Your task to perform on an android device: See recent photos Image 0: 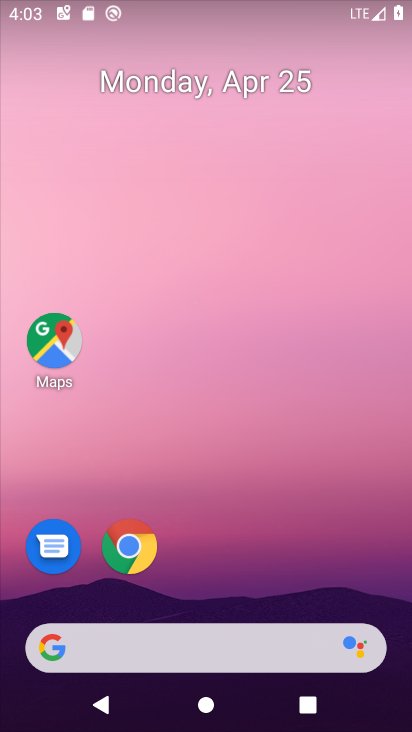
Step 0: drag from (300, 491) to (408, 59)
Your task to perform on an android device: See recent photos Image 1: 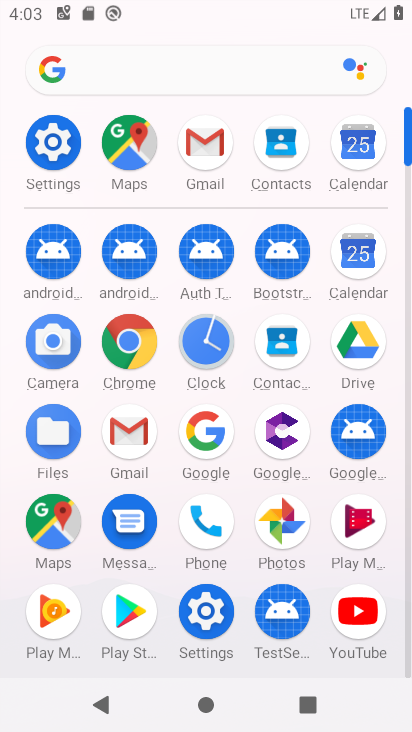
Step 1: click (274, 518)
Your task to perform on an android device: See recent photos Image 2: 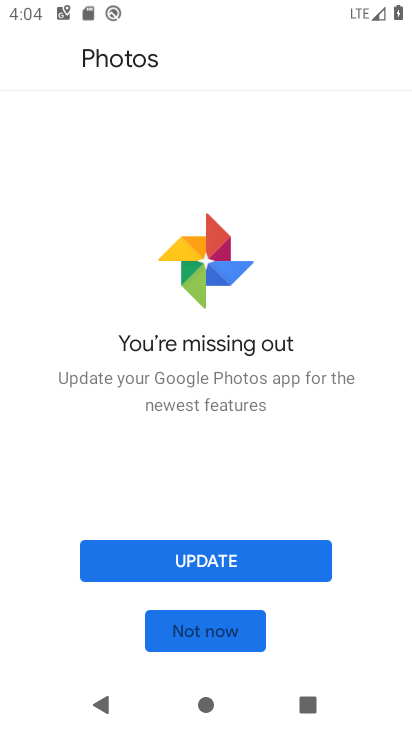
Step 2: click (217, 555)
Your task to perform on an android device: See recent photos Image 3: 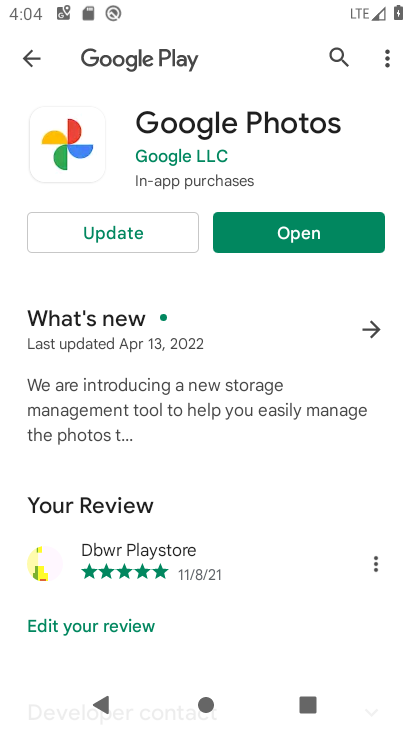
Step 3: click (170, 232)
Your task to perform on an android device: See recent photos Image 4: 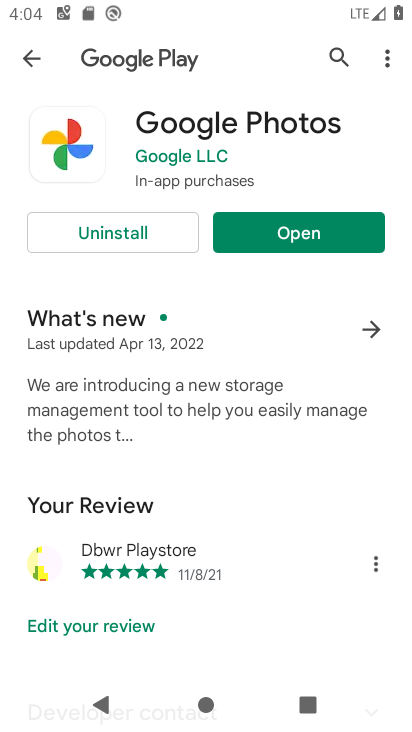
Step 4: click (299, 238)
Your task to perform on an android device: See recent photos Image 5: 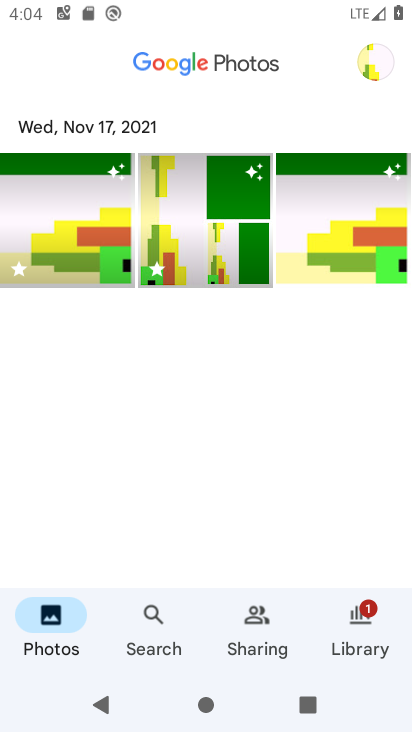
Step 5: task complete